Your task to perform on an android device: Go to eBay Image 0: 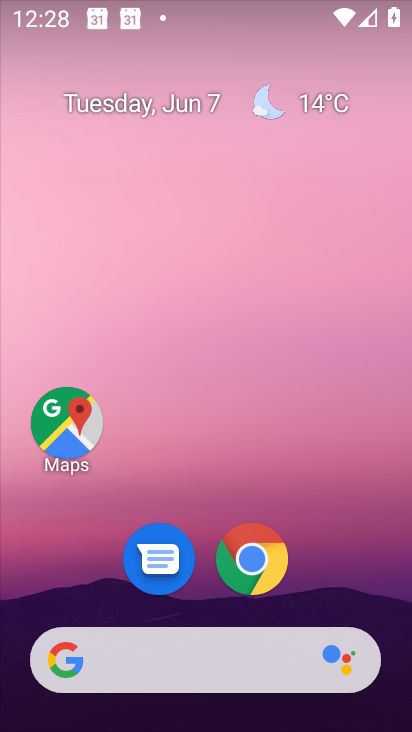
Step 0: click (249, 581)
Your task to perform on an android device: Go to eBay Image 1: 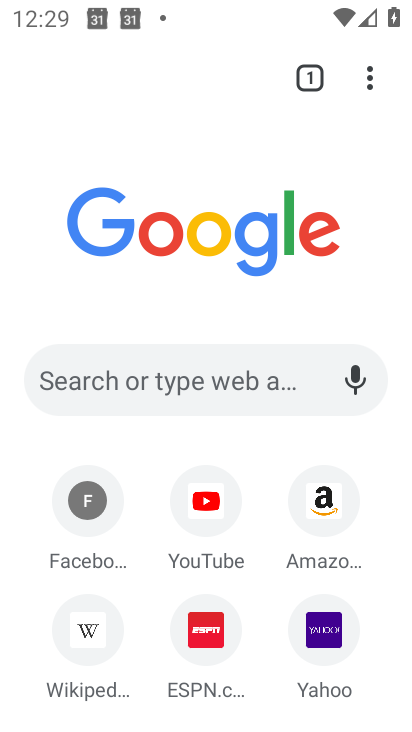
Step 1: click (184, 383)
Your task to perform on an android device: Go to eBay Image 2: 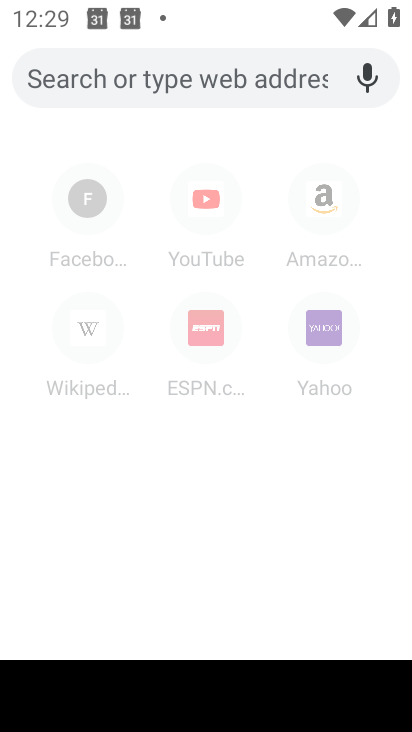
Step 2: type "eBay"
Your task to perform on an android device: Go to eBay Image 3: 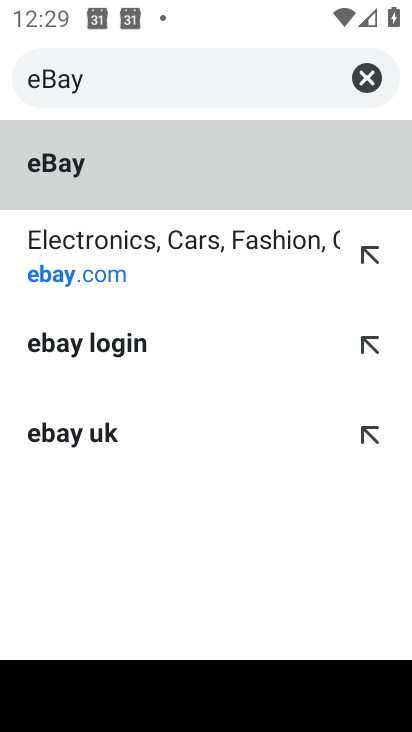
Step 3: click (131, 253)
Your task to perform on an android device: Go to eBay Image 4: 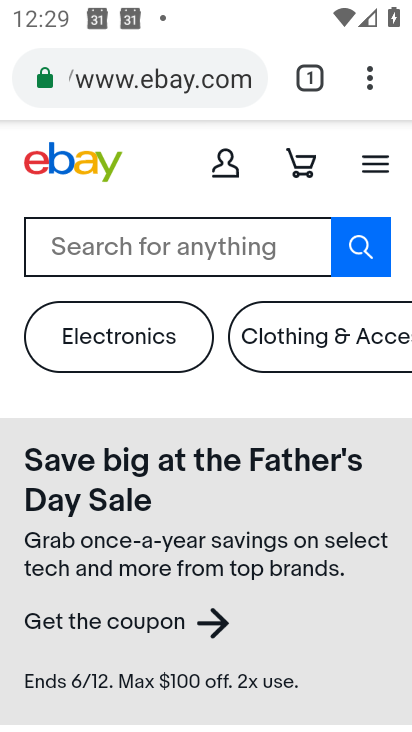
Step 4: task complete